Your task to perform on an android device: toggle location history Image 0: 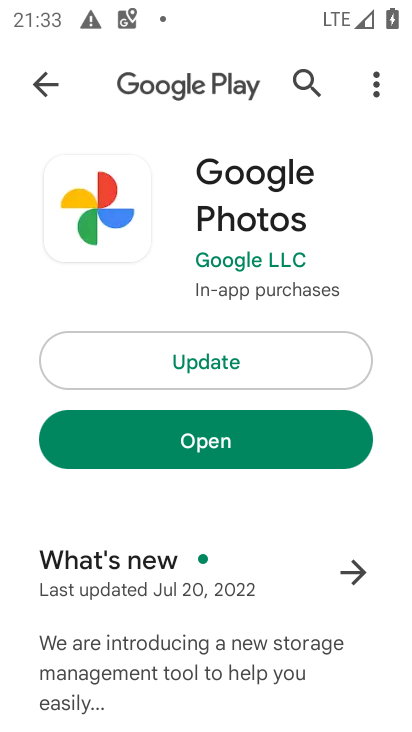
Step 0: press home button
Your task to perform on an android device: toggle location history Image 1: 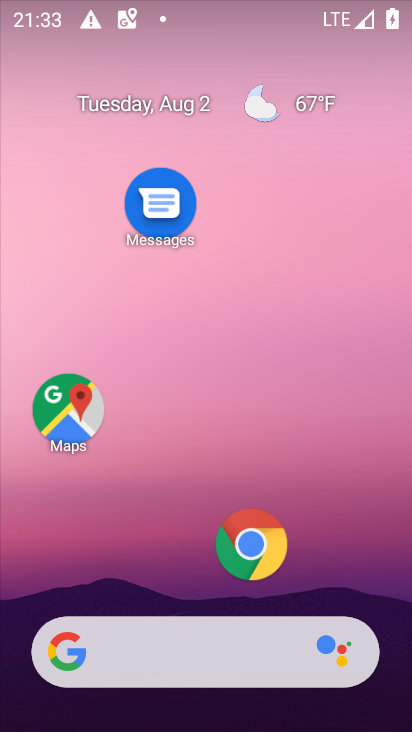
Step 1: drag from (166, 579) to (209, 191)
Your task to perform on an android device: toggle location history Image 2: 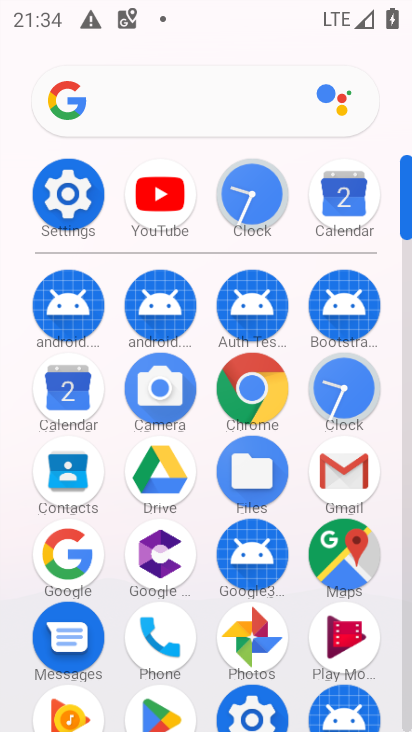
Step 2: click (45, 219)
Your task to perform on an android device: toggle location history Image 3: 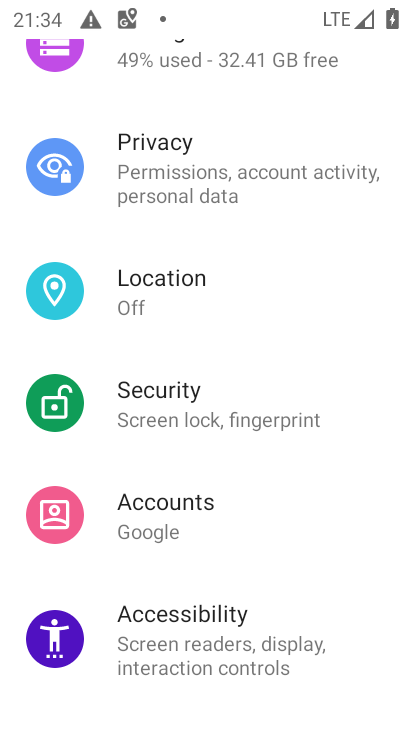
Step 3: click (169, 288)
Your task to perform on an android device: toggle location history Image 4: 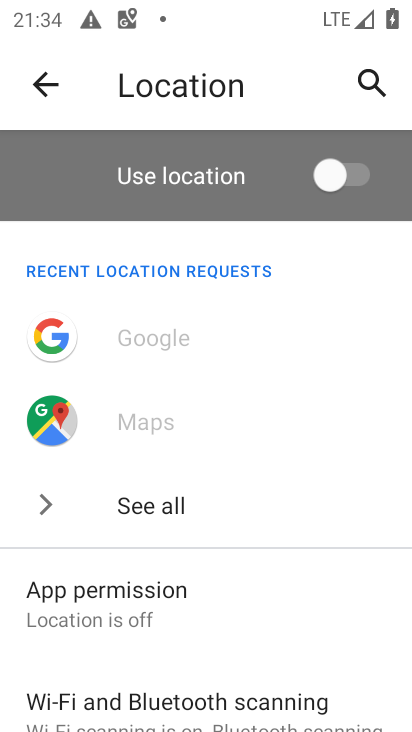
Step 4: drag from (238, 638) to (237, 203)
Your task to perform on an android device: toggle location history Image 5: 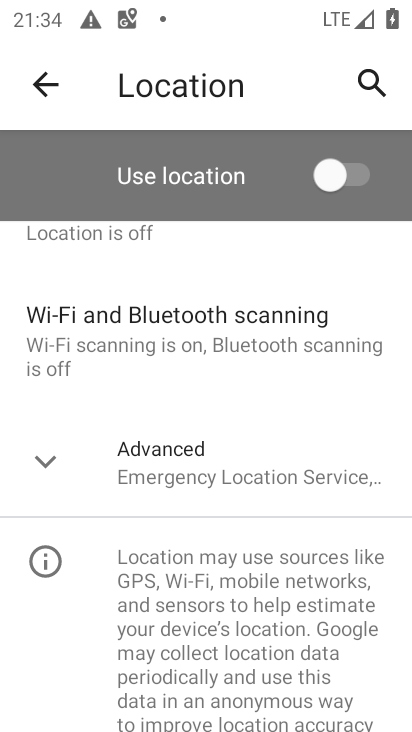
Step 5: click (229, 471)
Your task to perform on an android device: toggle location history Image 6: 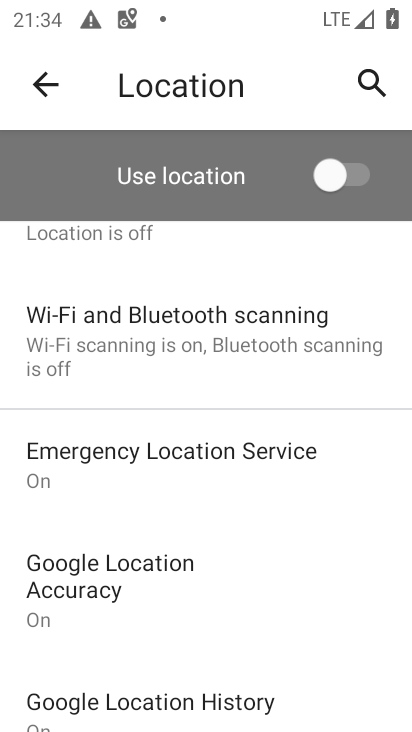
Step 6: drag from (209, 673) to (216, 405)
Your task to perform on an android device: toggle location history Image 7: 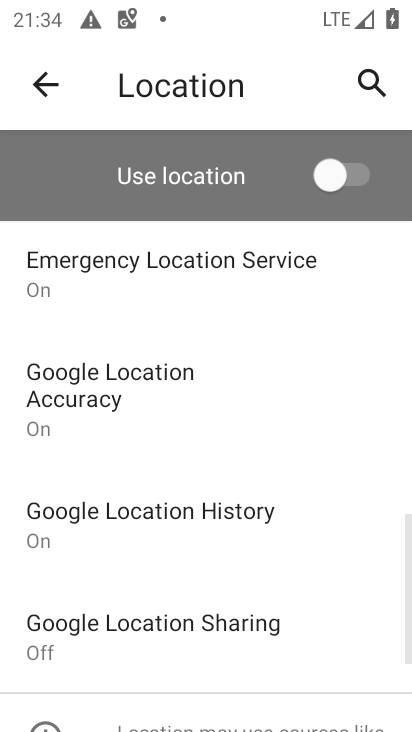
Step 7: click (217, 516)
Your task to perform on an android device: toggle location history Image 8: 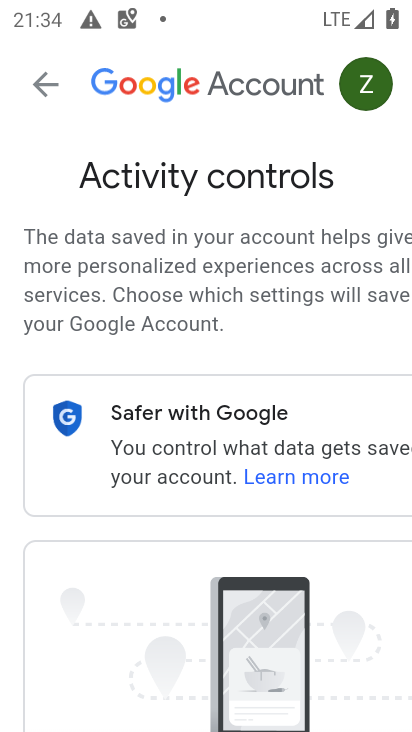
Step 8: drag from (179, 594) to (204, 174)
Your task to perform on an android device: toggle location history Image 9: 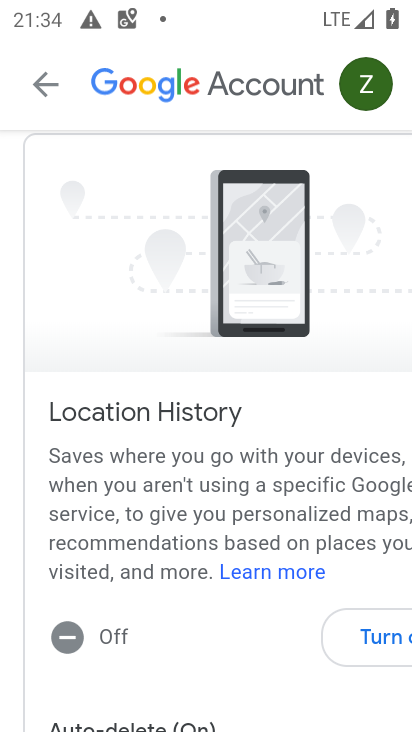
Step 9: drag from (221, 546) to (222, 374)
Your task to perform on an android device: toggle location history Image 10: 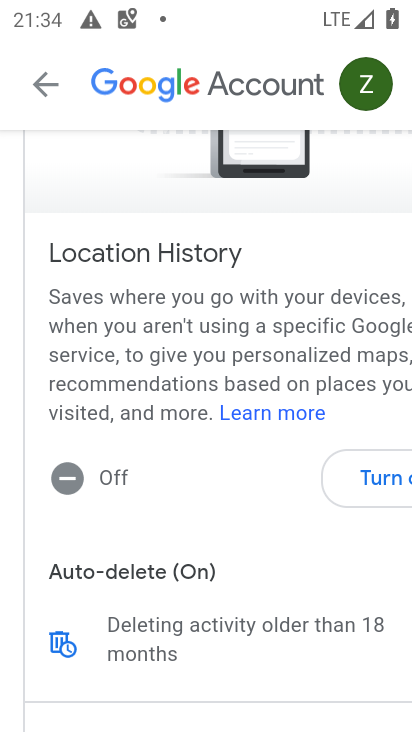
Step 10: click (364, 478)
Your task to perform on an android device: toggle location history Image 11: 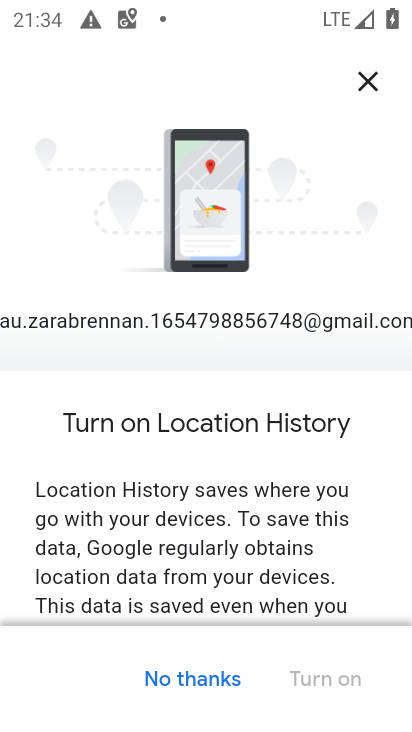
Step 11: drag from (233, 585) to (225, 145)
Your task to perform on an android device: toggle location history Image 12: 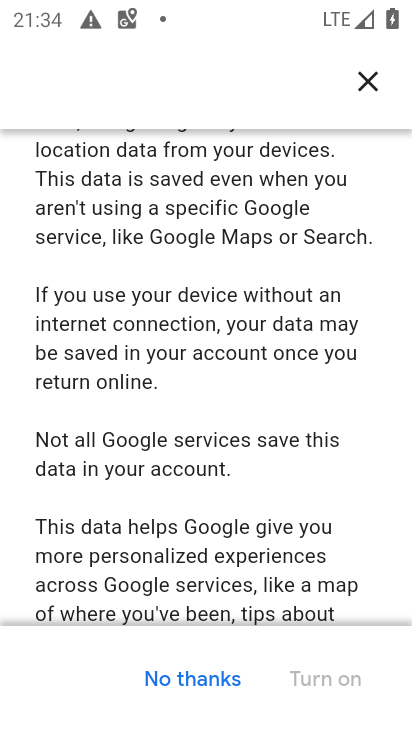
Step 12: drag from (263, 537) to (258, 141)
Your task to perform on an android device: toggle location history Image 13: 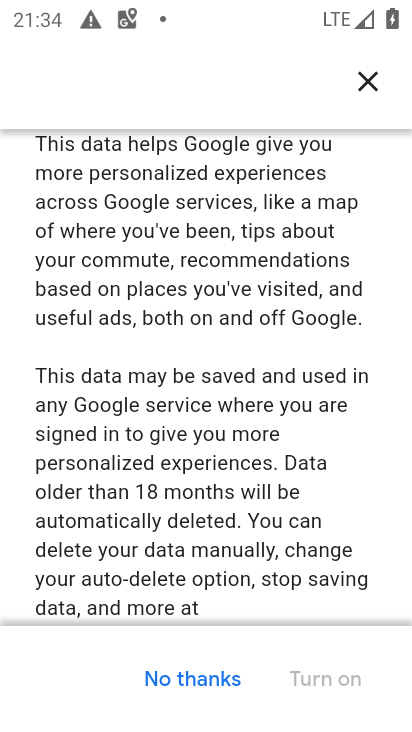
Step 13: drag from (285, 544) to (268, 196)
Your task to perform on an android device: toggle location history Image 14: 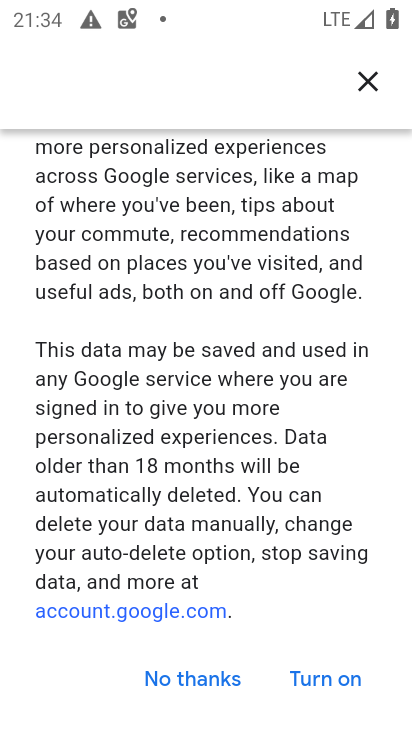
Step 14: click (299, 671)
Your task to perform on an android device: toggle location history Image 15: 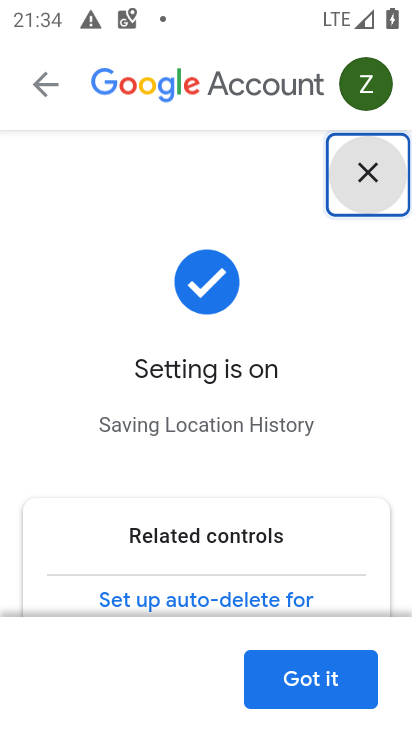
Step 15: task complete